Your task to perform on an android device: read, delete, or share a saved page in the chrome app Image 0: 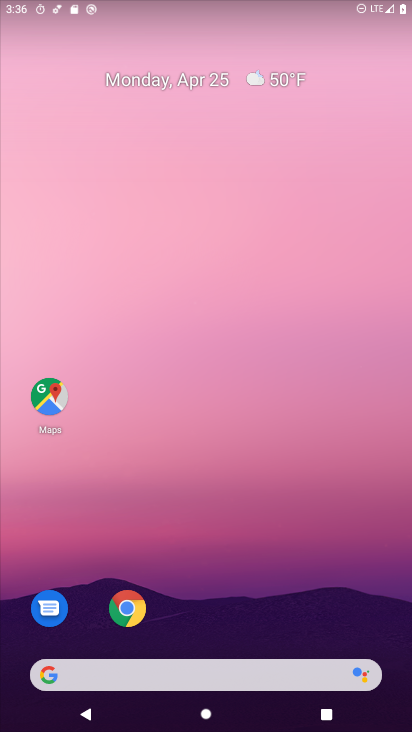
Step 0: click (142, 613)
Your task to perform on an android device: read, delete, or share a saved page in the chrome app Image 1: 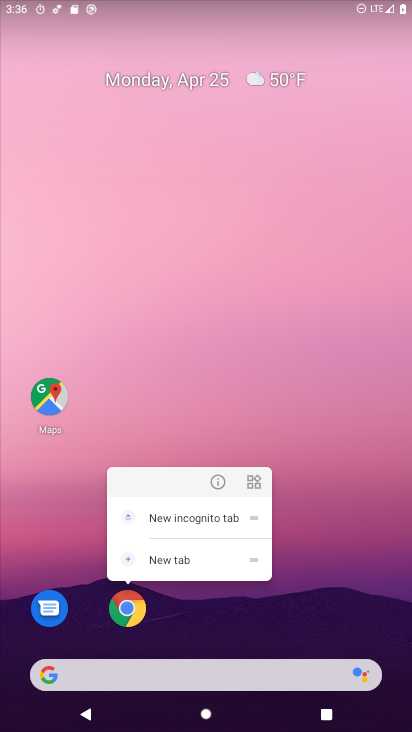
Step 1: click (143, 611)
Your task to perform on an android device: read, delete, or share a saved page in the chrome app Image 2: 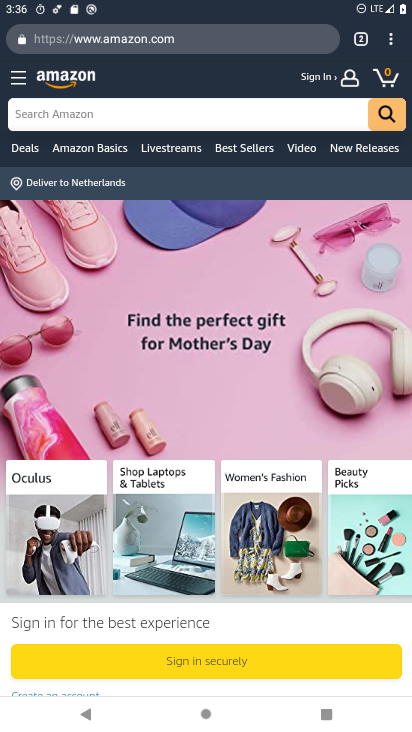
Step 2: drag from (393, 41) to (271, 293)
Your task to perform on an android device: read, delete, or share a saved page in the chrome app Image 3: 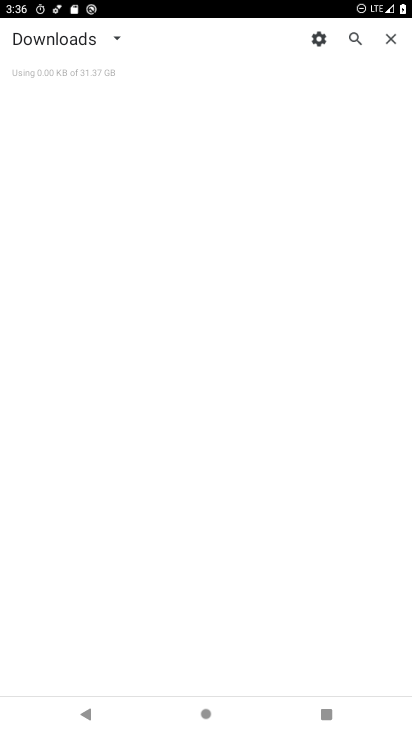
Step 3: click (107, 40)
Your task to perform on an android device: read, delete, or share a saved page in the chrome app Image 4: 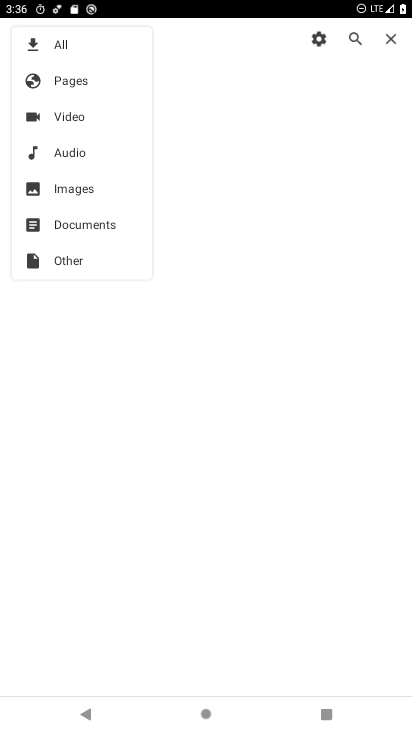
Step 4: click (82, 80)
Your task to perform on an android device: read, delete, or share a saved page in the chrome app Image 5: 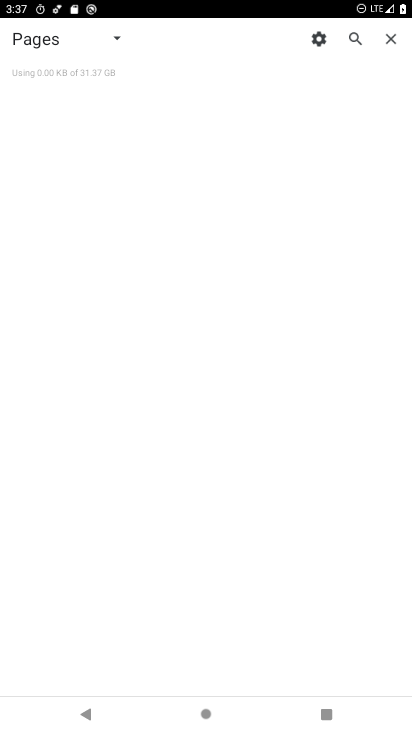
Step 5: task complete